Your task to perform on an android device: read, delete, or share a saved page in the chrome app Image 0: 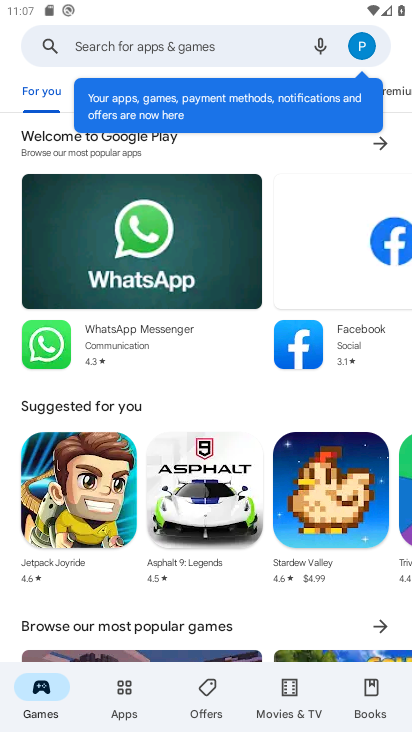
Step 0: press home button
Your task to perform on an android device: read, delete, or share a saved page in the chrome app Image 1: 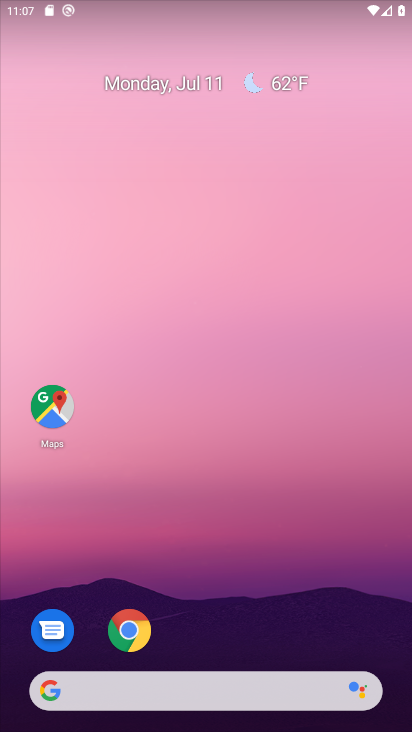
Step 1: click (129, 638)
Your task to perform on an android device: read, delete, or share a saved page in the chrome app Image 2: 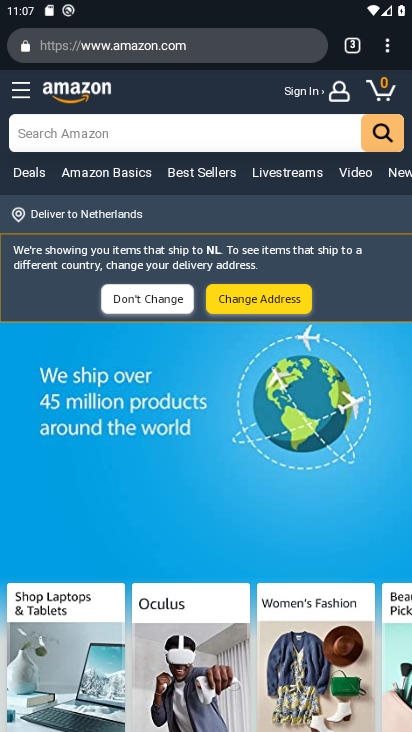
Step 2: click (389, 43)
Your task to perform on an android device: read, delete, or share a saved page in the chrome app Image 3: 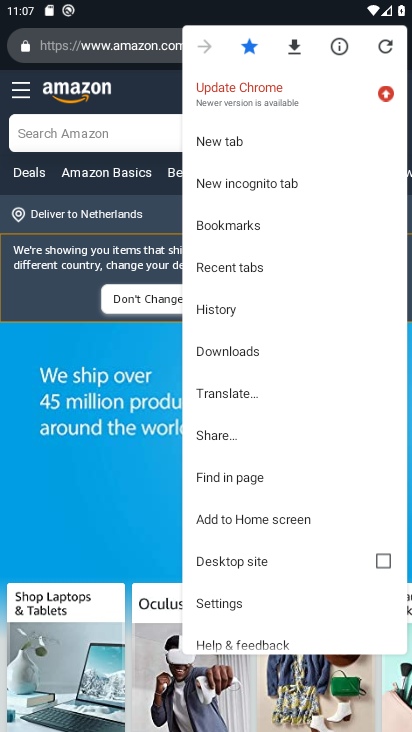
Step 3: click (248, 349)
Your task to perform on an android device: read, delete, or share a saved page in the chrome app Image 4: 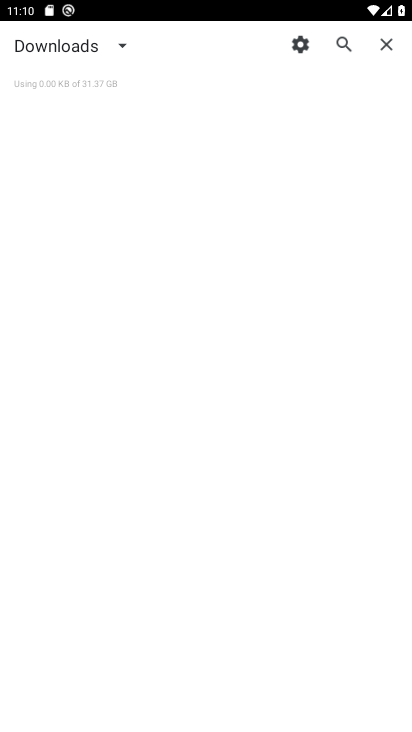
Step 4: task complete